Your task to perform on an android device: See recent photos Image 0: 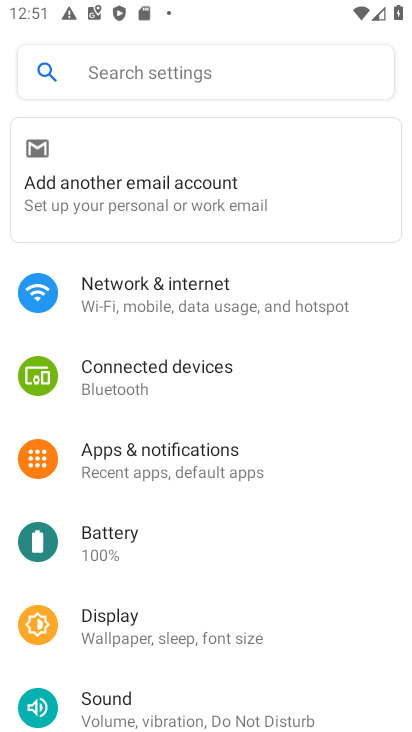
Step 0: press home button
Your task to perform on an android device: See recent photos Image 1: 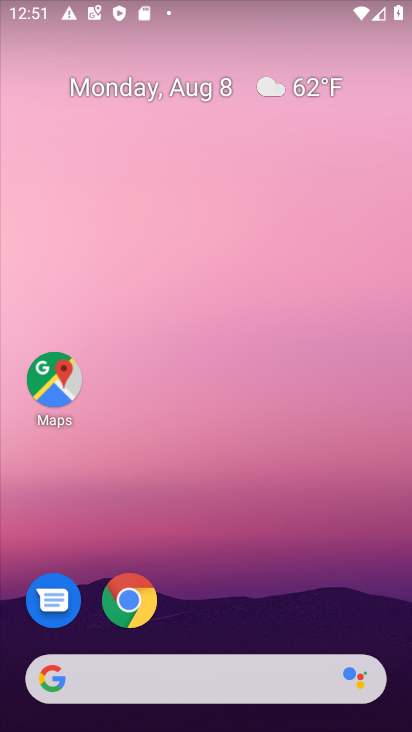
Step 1: drag from (225, 610) to (268, 193)
Your task to perform on an android device: See recent photos Image 2: 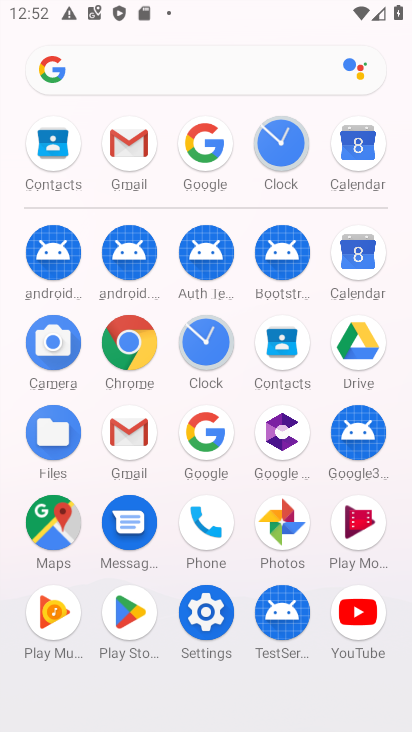
Step 2: click (302, 511)
Your task to perform on an android device: See recent photos Image 3: 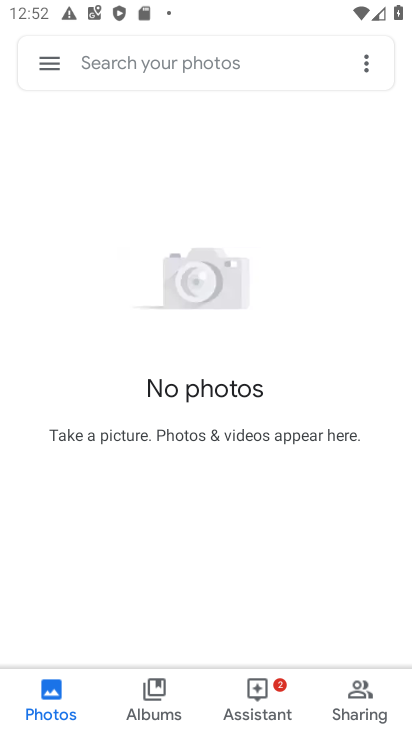
Step 3: task complete